Your task to perform on an android device: When is my next appointment? Image 0: 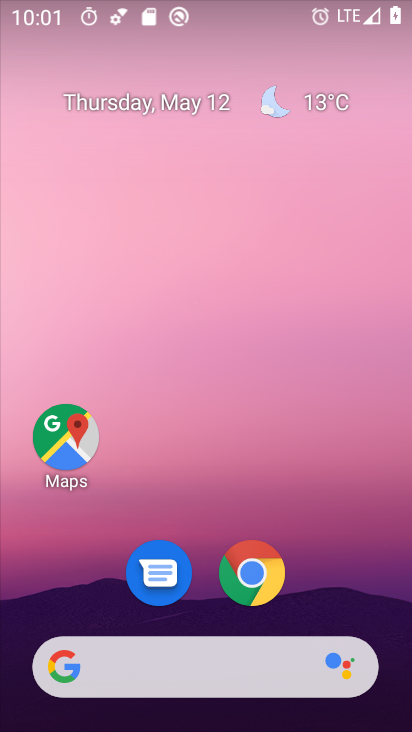
Step 0: drag from (406, 677) to (409, 236)
Your task to perform on an android device: When is my next appointment? Image 1: 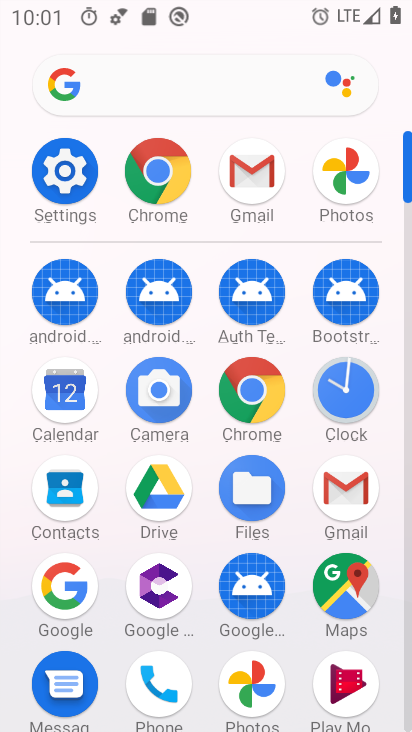
Step 1: click (54, 396)
Your task to perform on an android device: When is my next appointment? Image 2: 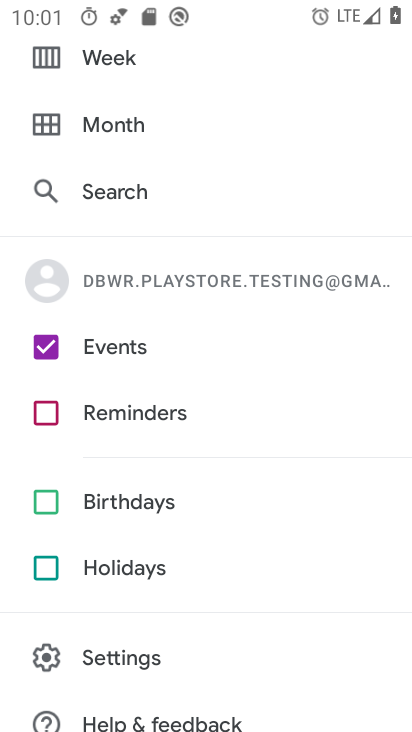
Step 2: task complete